Your task to perform on an android device: turn on the 12-hour format for clock Image 0: 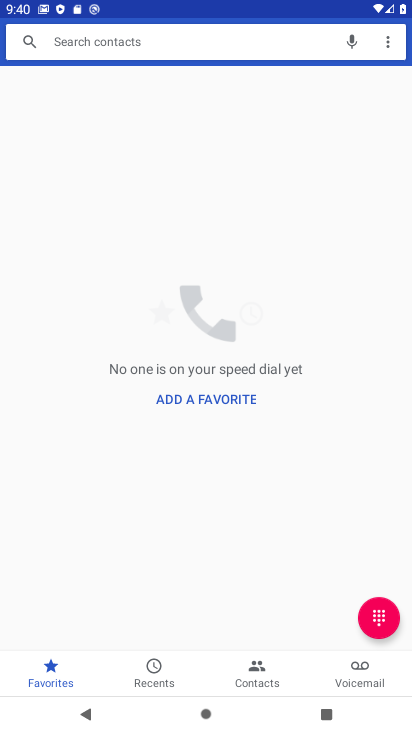
Step 0: press home button
Your task to perform on an android device: turn on the 12-hour format for clock Image 1: 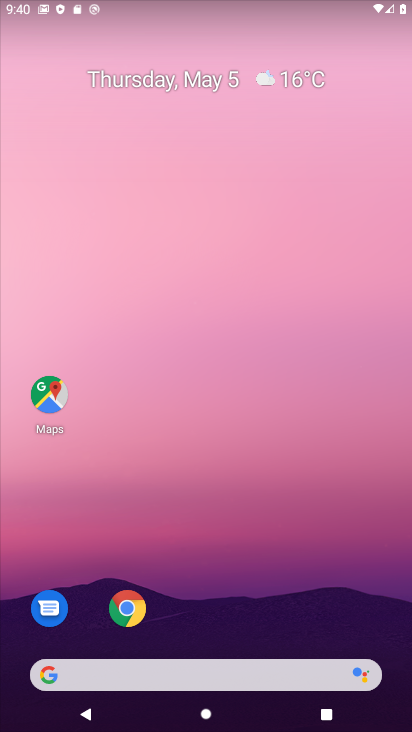
Step 1: drag from (265, 594) to (215, 60)
Your task to perform on an android device: turn on the 12-hour format for clock Image 2: 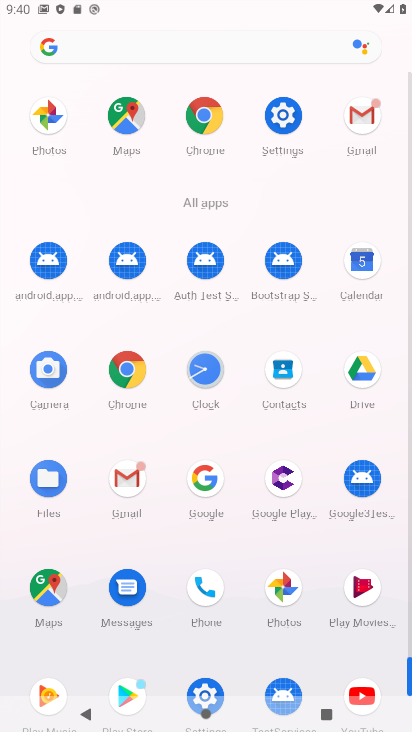
Step 2: drag from (248, 226) to (235, 9)
Your task to perform on an android device: turn on the 12-hour format for clock Image 3: 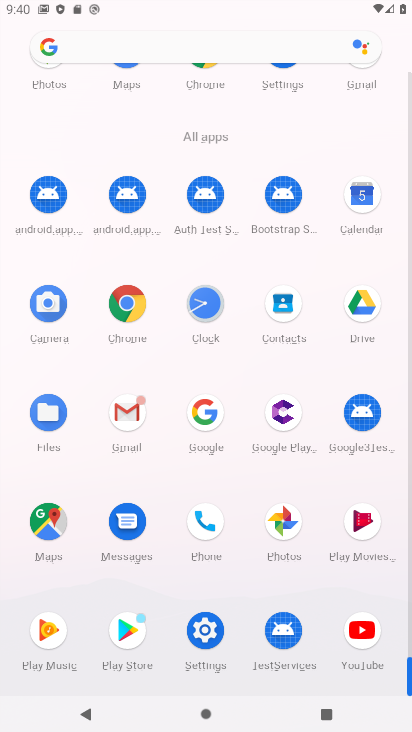
Step 3: click (207, 307)
Your task to perform on an android device: turn on the 12-hour format for clock Image 4: 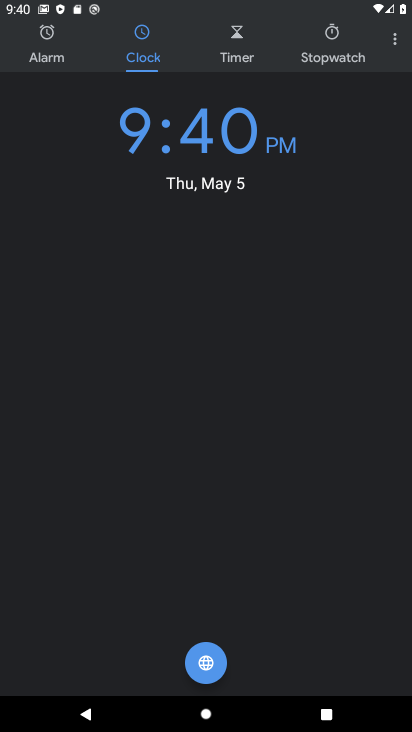
Step 4: click (393, 45)
Your task to perform on an android device: turn on the 12-hour format for clock Image 5: 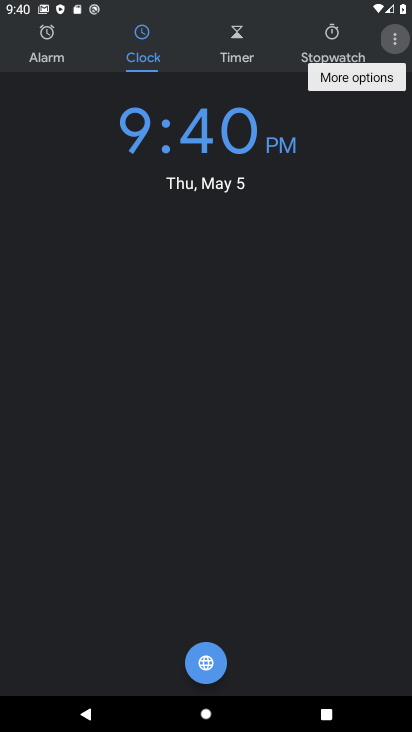
Step 5: click (393, 45)
Your task to perform on an android device: turn on the 12-hour format for clock Image 6: 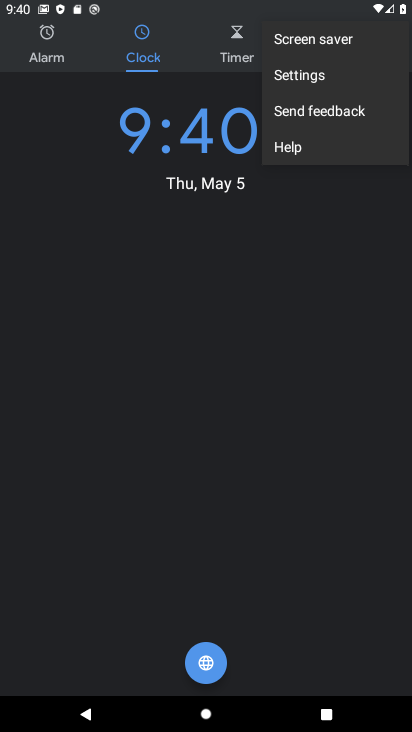
Step 6: click (323, 80)
Your task to perform on an android device: turn on the 12-hour format for clock Image 7: 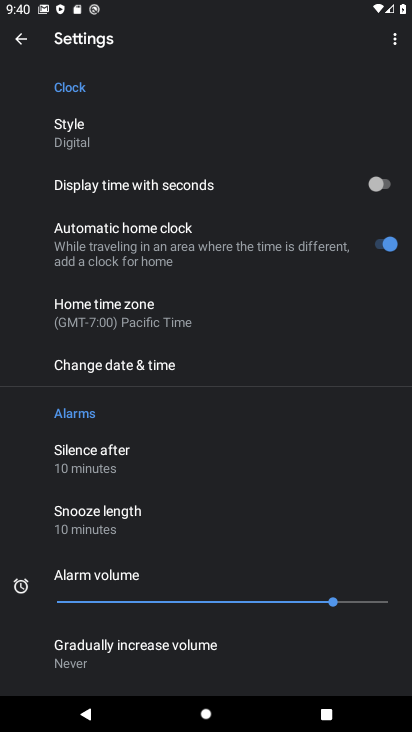
Step 7: drag from (207, 503) to (199, 368)
Your task to perform on an android device: turn on the 12-hour format for clock Image 8: 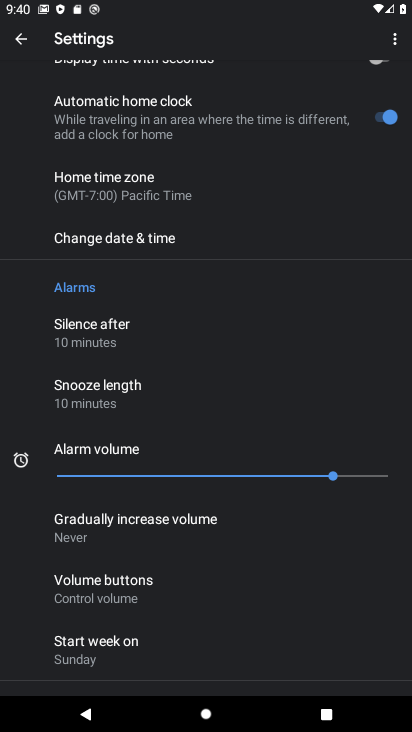
Step 8: click (104, 239)
Your task to perform on an android device: turn on the 12-hour format for clock Image 9: 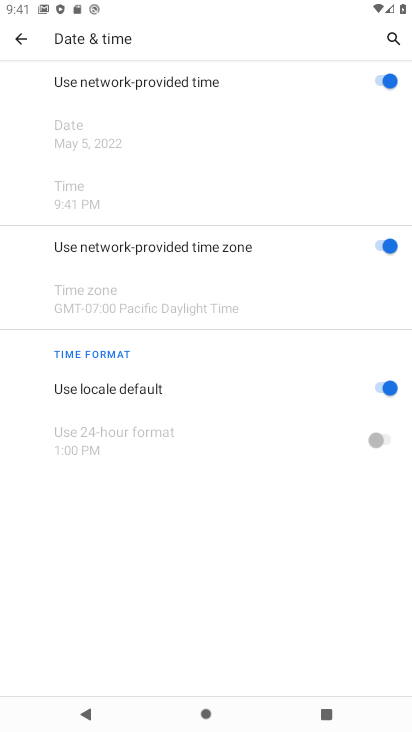
Step 9: click (383, 437)
Your task to perform on an android device: turn on the 12-hour format for clock Image 10: 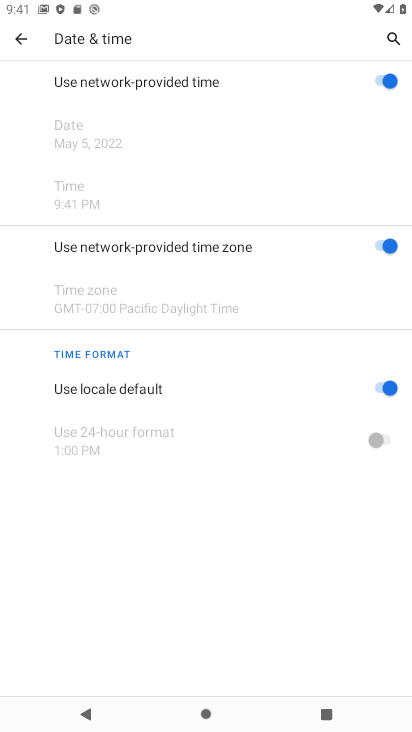
Step 10: click (379, 388)
Your task to perform on an android device: turn on the 12-hour format for clock Image 11: 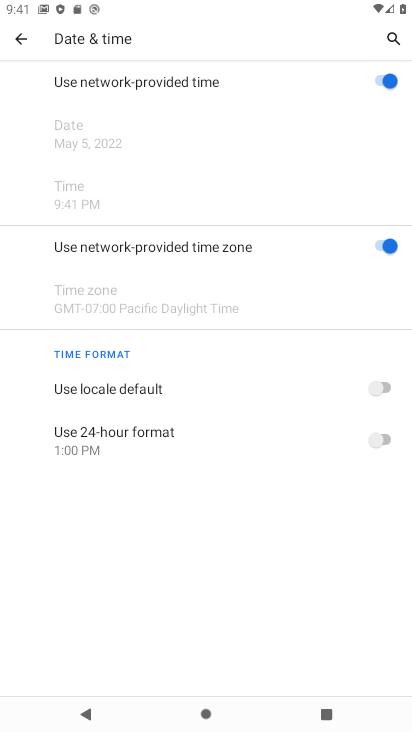
Step 11: click (382, 438)
Your task to perform on an android device: turn on the 12-hour format for clock Image 12: 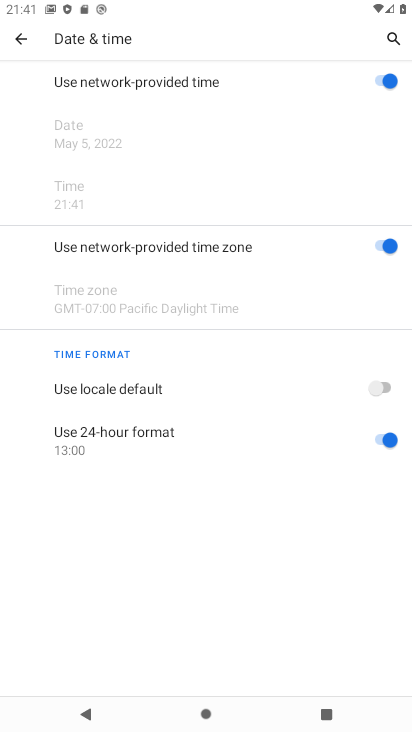
Step 12: task complete